Your task to perform on an android device: Search for "bose quietcomfort 35" on newegg.com, select the first entry, add it to the cart, then select checkout. Image 0: 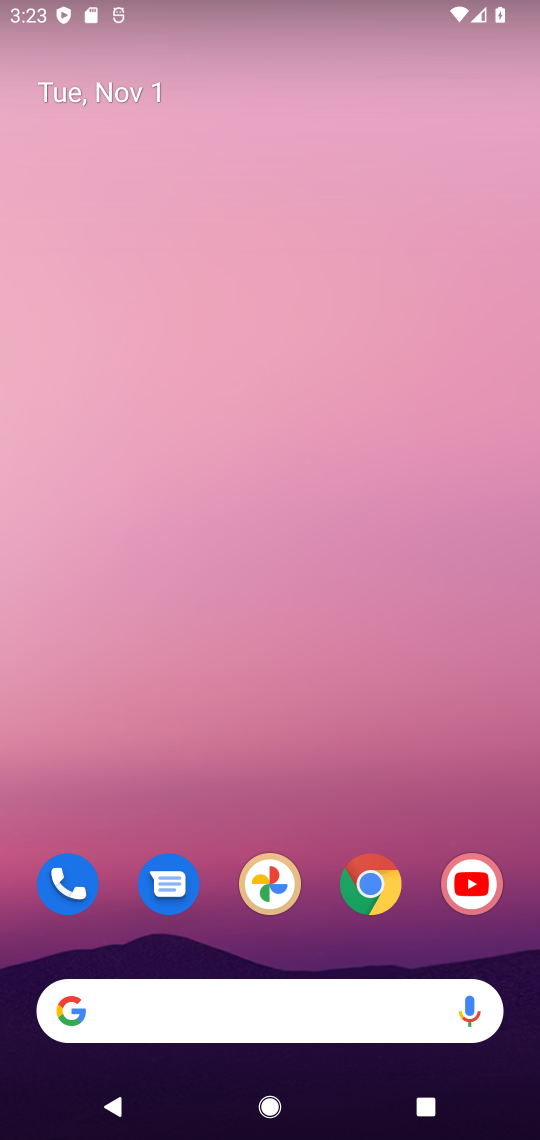
Step 0: click (373, 877)
Your task to perform on an android device: Search for "bose quietcomfort 35" on newegg.com, select the first entry, add it to the cart, then select checkout. Image 1: 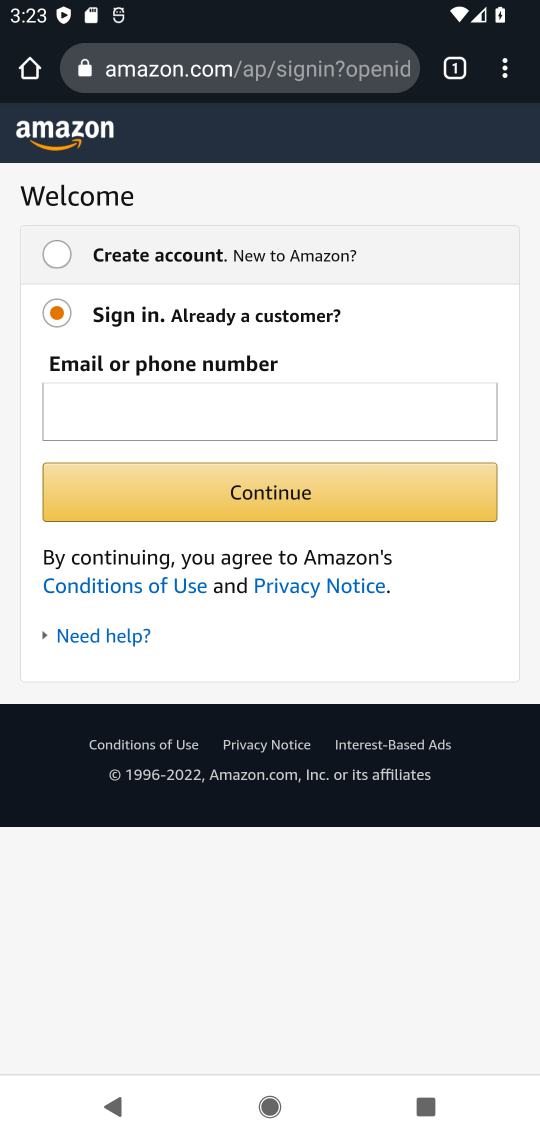
Step 1: click (308, 69)
Your task to perform on an android device: Search for "bose quietcomfort 35" on newegg.com, select the first entry, add it to the cart, then select checkout. Image 2: 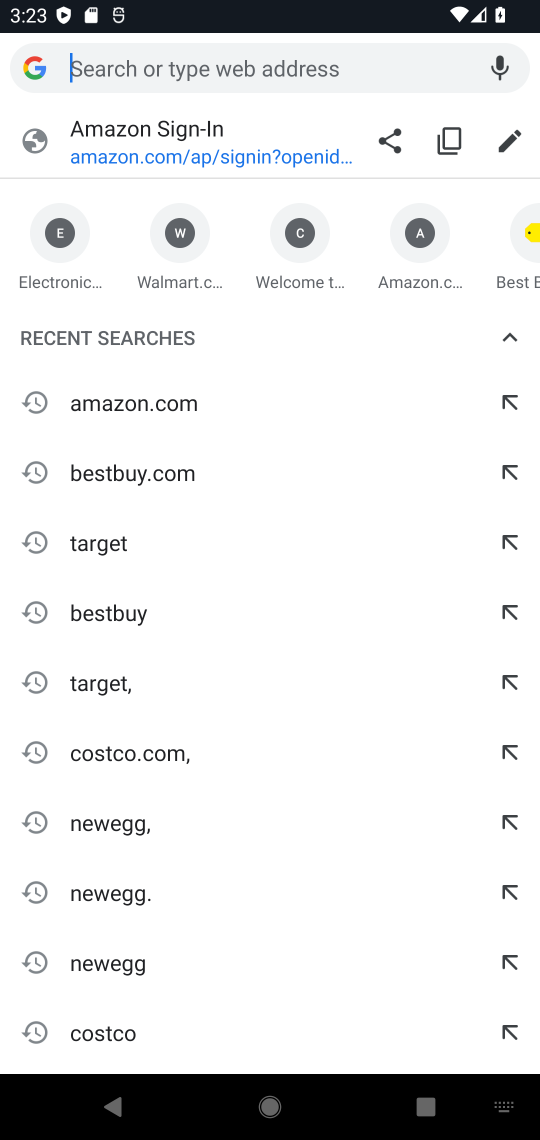
Step 2: type "newegg.com"
Your task to perform on an android device: Search for "bose quietcomfort 35" on newegg.com, select the first entry, add it to the cart, then select checkout. Image 3: 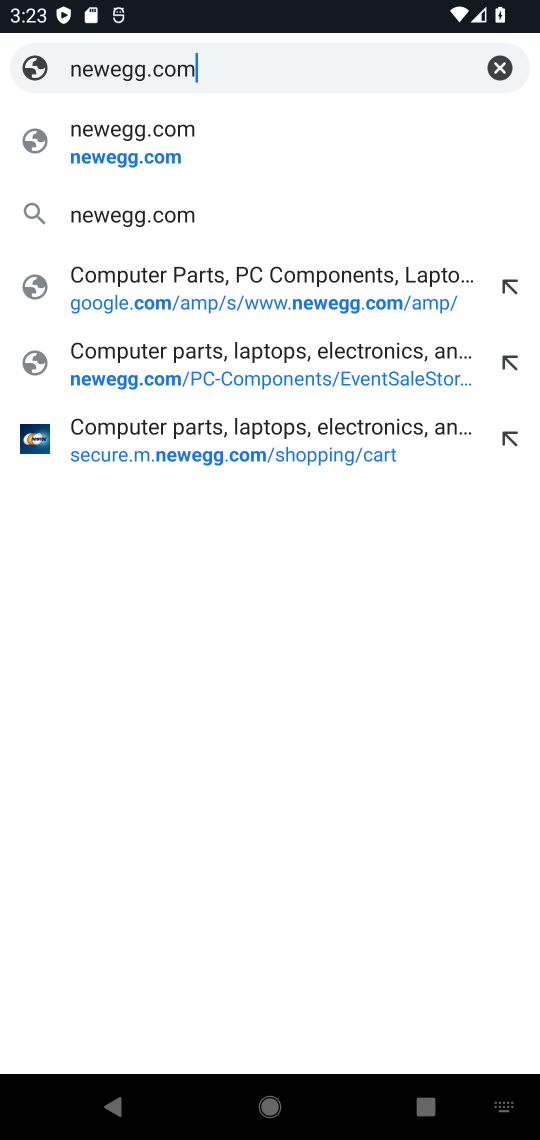
Step 3: click (172, 133)
Your task to perform on an android device: Search for "bose quietcomfort 35" on newegg.com, select the first entry, add it to the cart, then select checkout. Image 4: 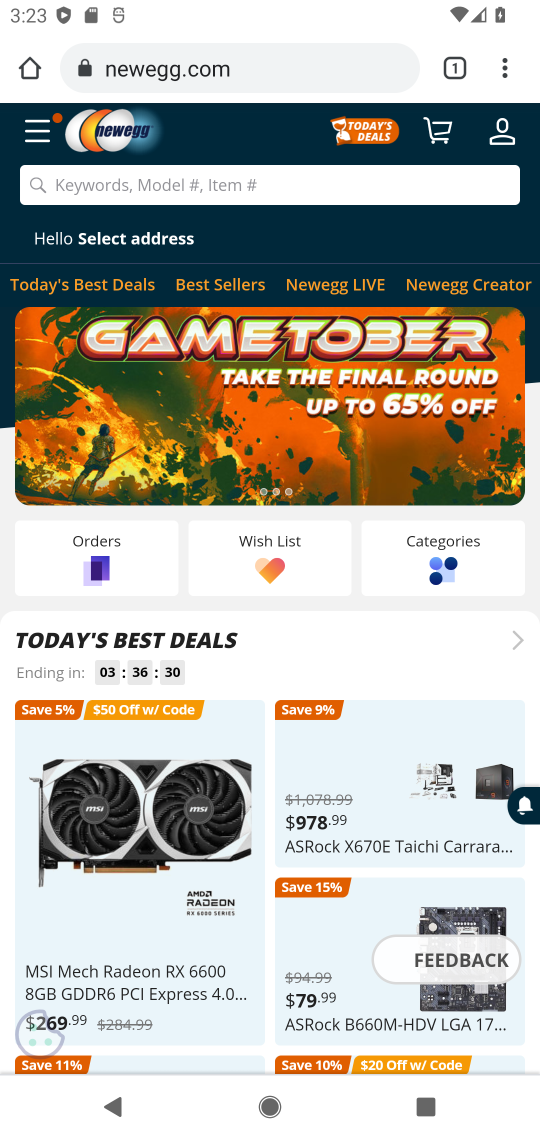
Step 4: click (309, 192)
Your task to perform on an android device: Search for "bose quietcomfort 35" on newegg.com, select the first entry, add it to the cart, then select checkout. Image 5: 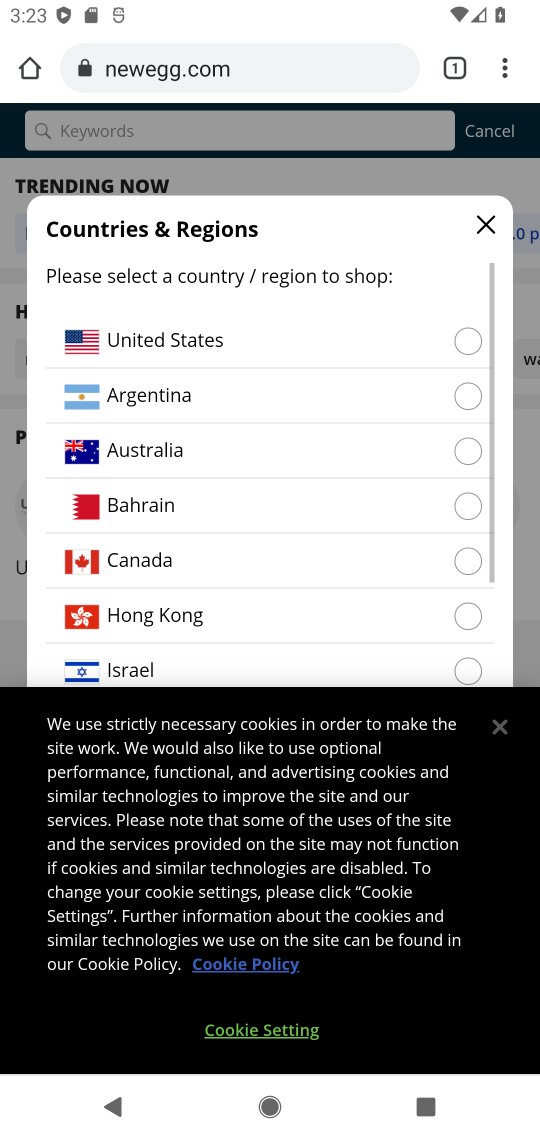
Step 5: click (479, 333)
Your task to perform on an android device: Search for "bose quietcomfort 35" on newegg.com, select the first entry, add it to the cart, then select checkout. Image 6: 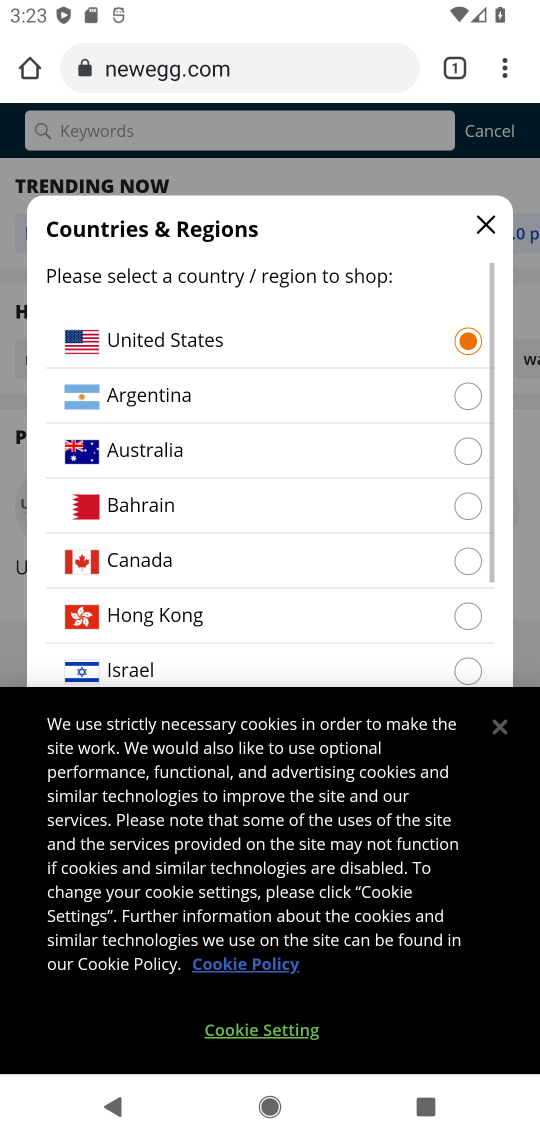
Step 6: click (489, 221)
Your task to perform on an android device: Search for "bose quietcomfort 35" on newegg.com, select the first entry, add it to the cart, then select checkout. Image 7: 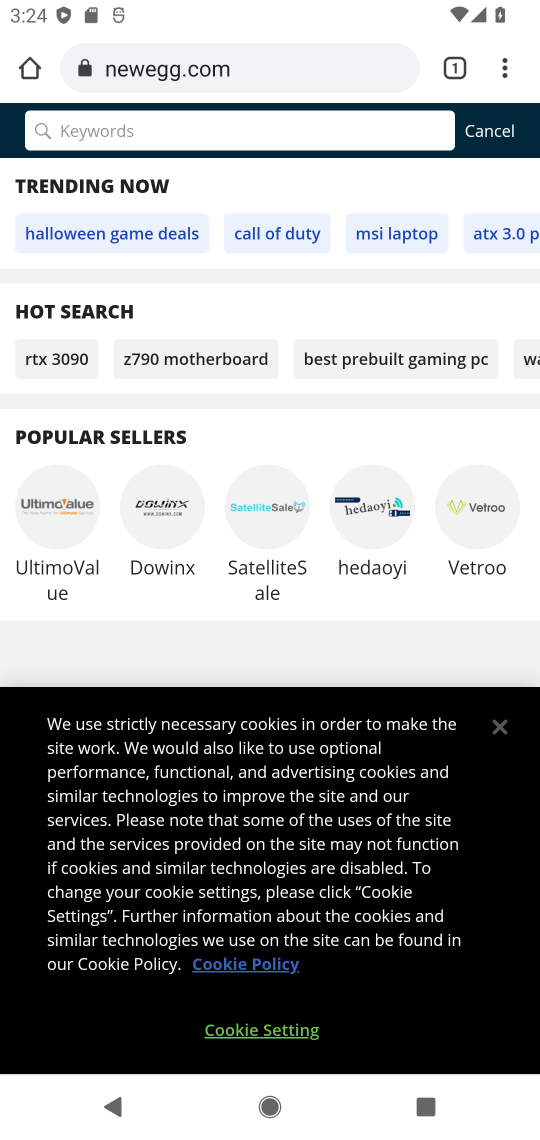
Step 7: click (484, 123)
Your task to perform on an android device: Search for "bose quietcomfort 35" on newegg.com, select the first entry, add it to the cart, then select checkout. Image 8: 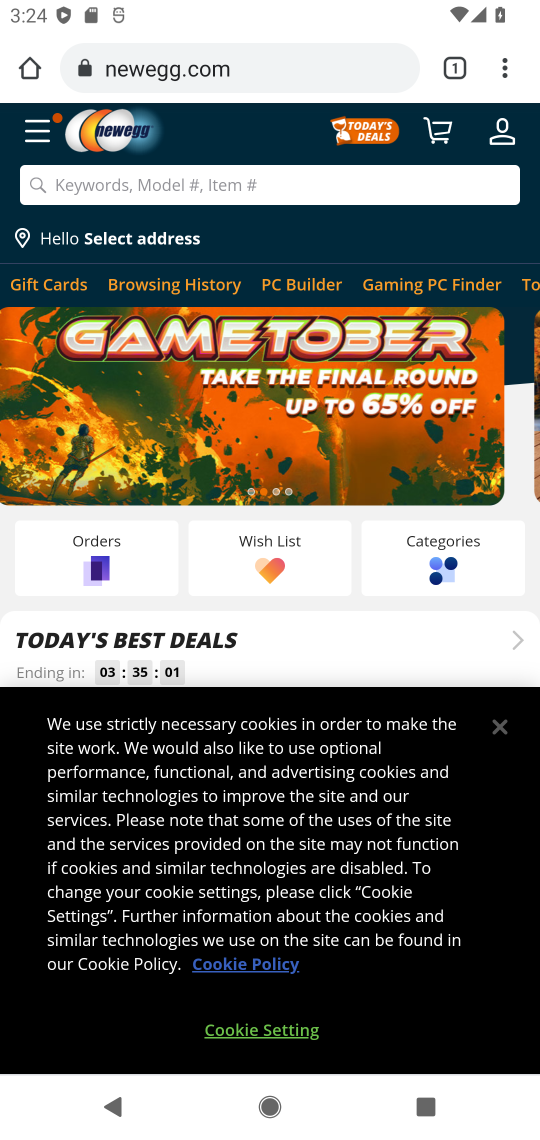
Step 8: click (287, 185)
Your task to perform on an android device: Search for "bose quietcomfort 35" on newegg.com, select the first entry, add it to the cart, then select checkout. Image 9: 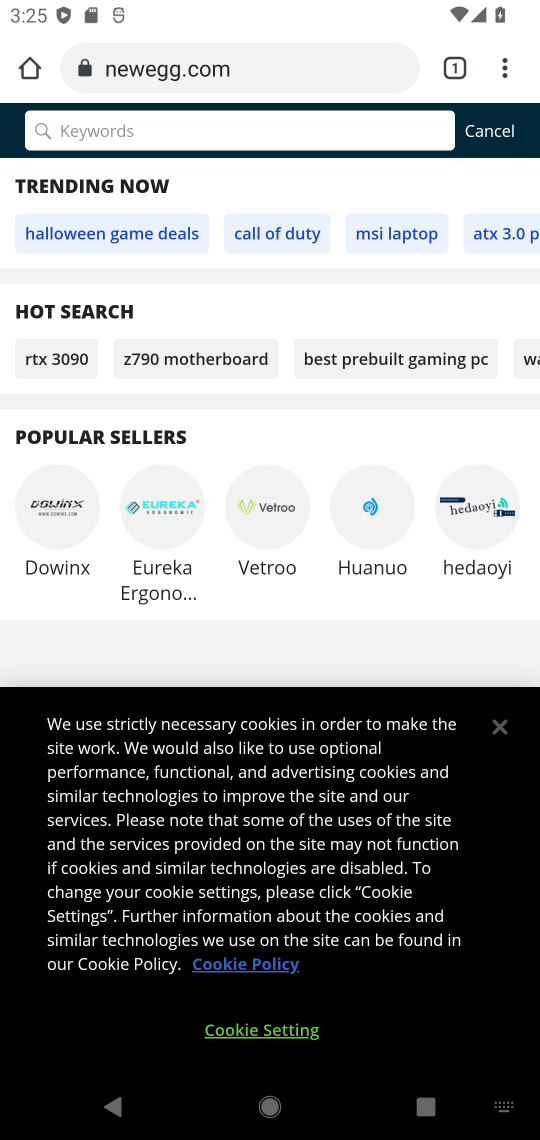
Step 9: type "bose quietcomfort 35"
Your task to perform on an android device: Search for "bose quietcomfort 35" on newegg.com, select the first entry, add it to the cart, then select checkout. Image 10: 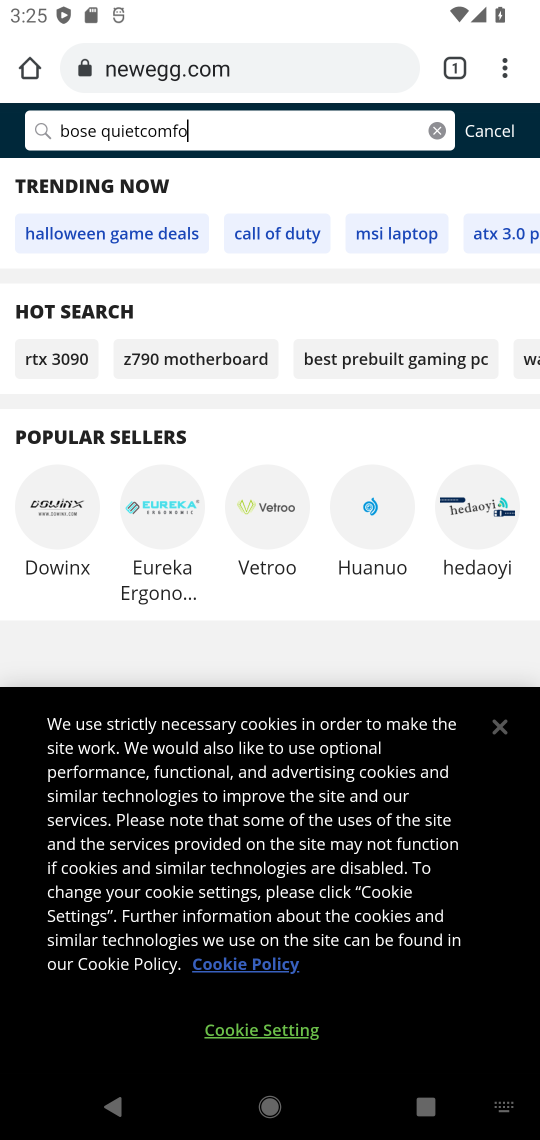
Step 10: press enter
Your task to perform on an android device: Search for "bose quietcomfort 35" on newegg.com, select the first entry, add it to the cart, then select checkout. Image 11: 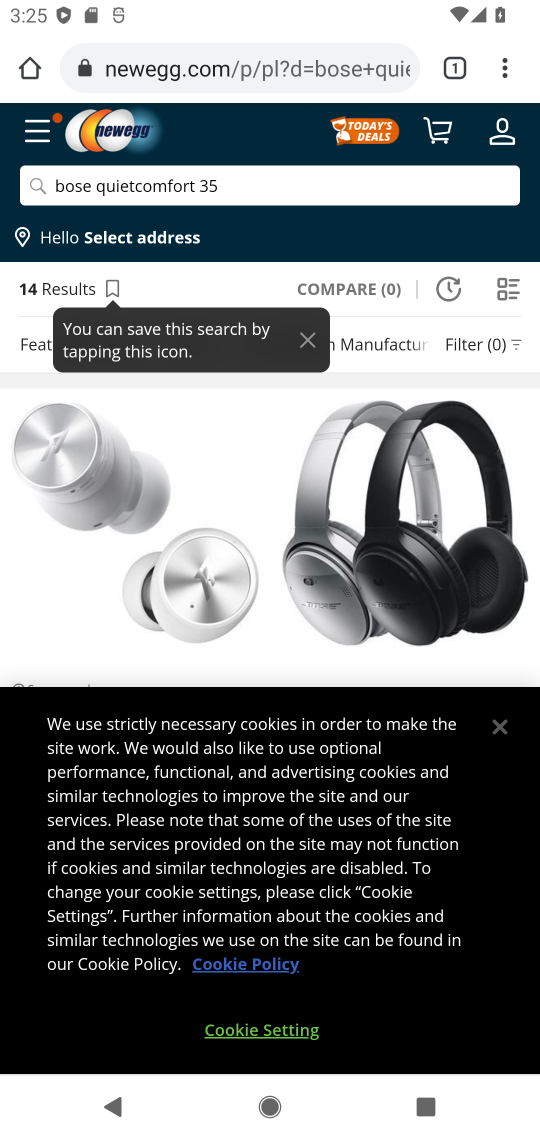
Step 11: click (509, 721)
Your task to perform on an android device: Search for "bose quietcomfort 35" on newegg.com, select the first entry, add it to the cart, then select checkout. Image 12: 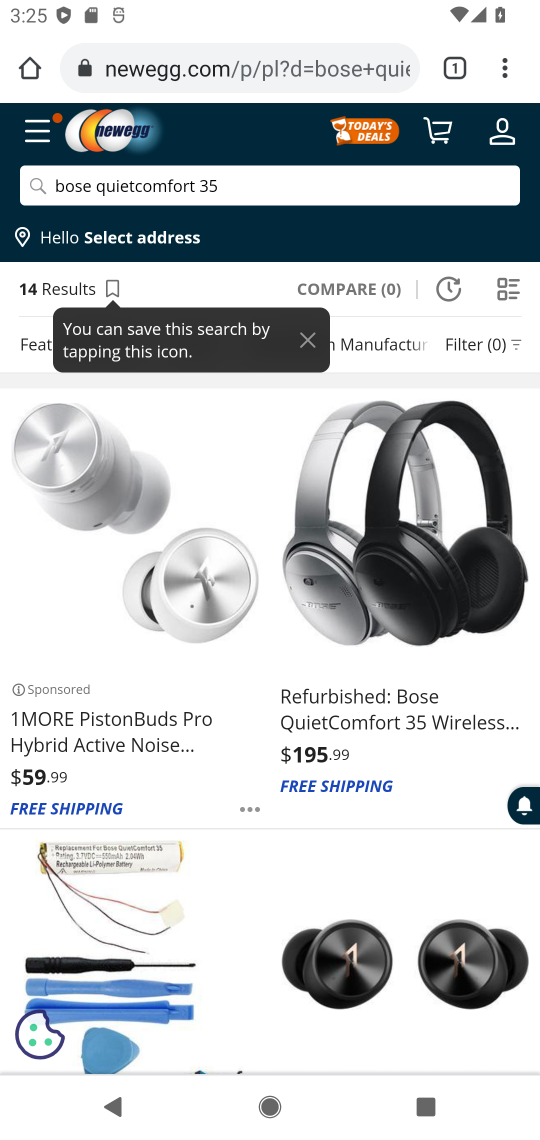
Step 12: click (85, 512)
Your task to perform on an android device: Search for "bose quietcomfort 35" on newegg.com, select the first entry, add it to the cart, then select checkout. Image 13: 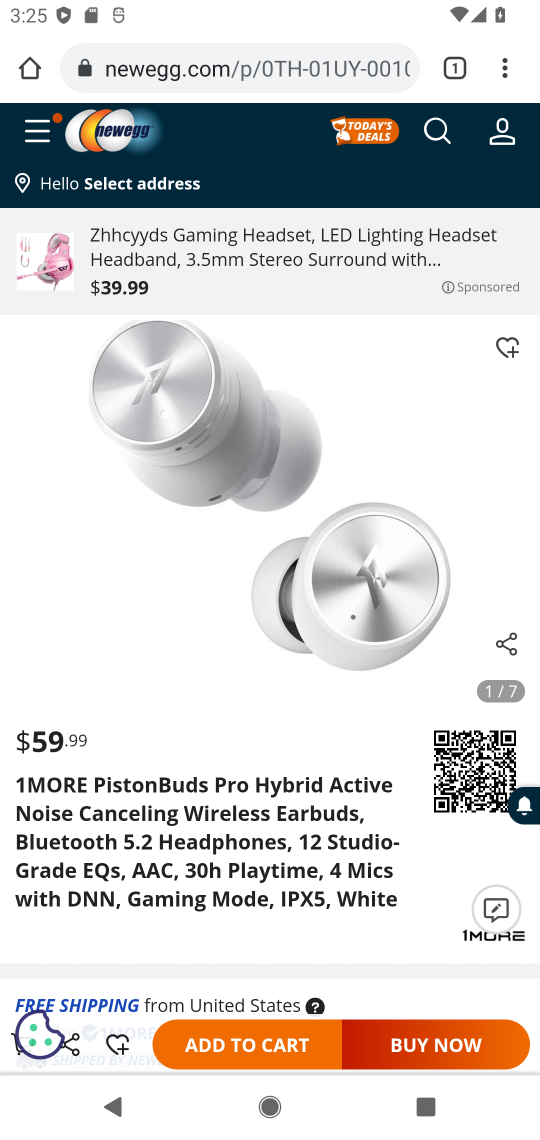
Step 13: click (207, 1048)
Your task to perform on an android device: Search for "bose quietcomfort 35" on newegg.com, select the first entry, add it to the cart, then select checkout. Image 14: 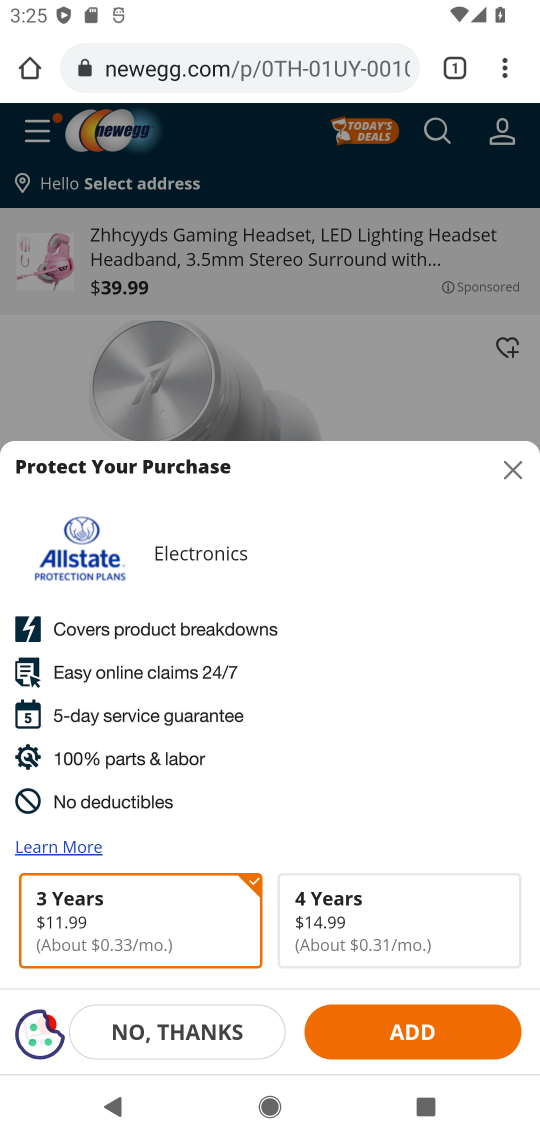
Step 14: click (507, 469)
Your task to perform on an android device: Search for "bose quietcomfort 35" on newegg.com, select the first entry, add it to the cart, then select checkout. Image 15: 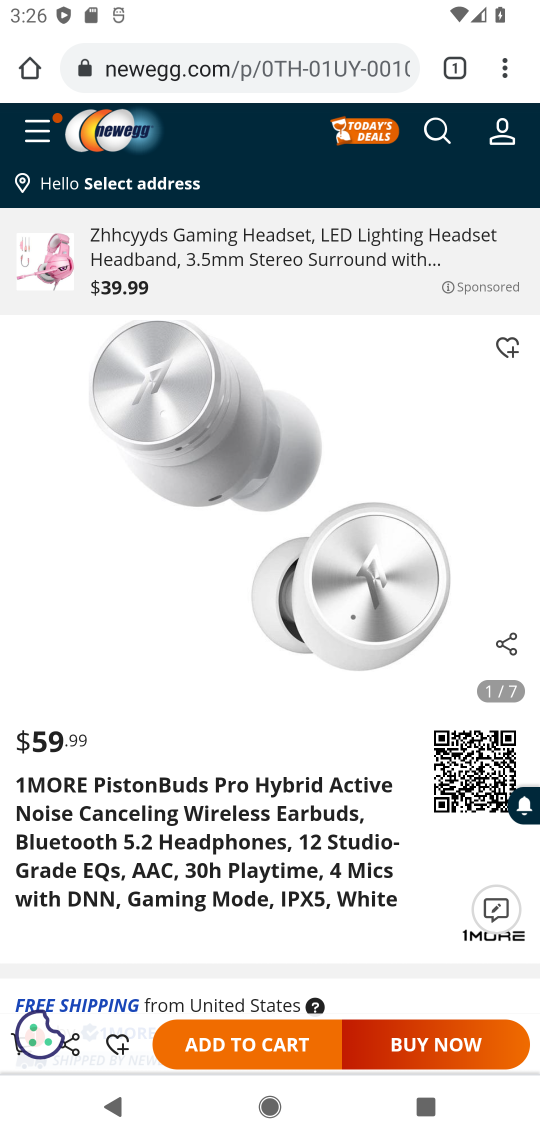
Step 15: click (501, 139)
Your task to perform on an android device: Search for "bose quietcomfort 35" on newegg.com, select the first entry, add it to the cart, then select checkout. Image 16: 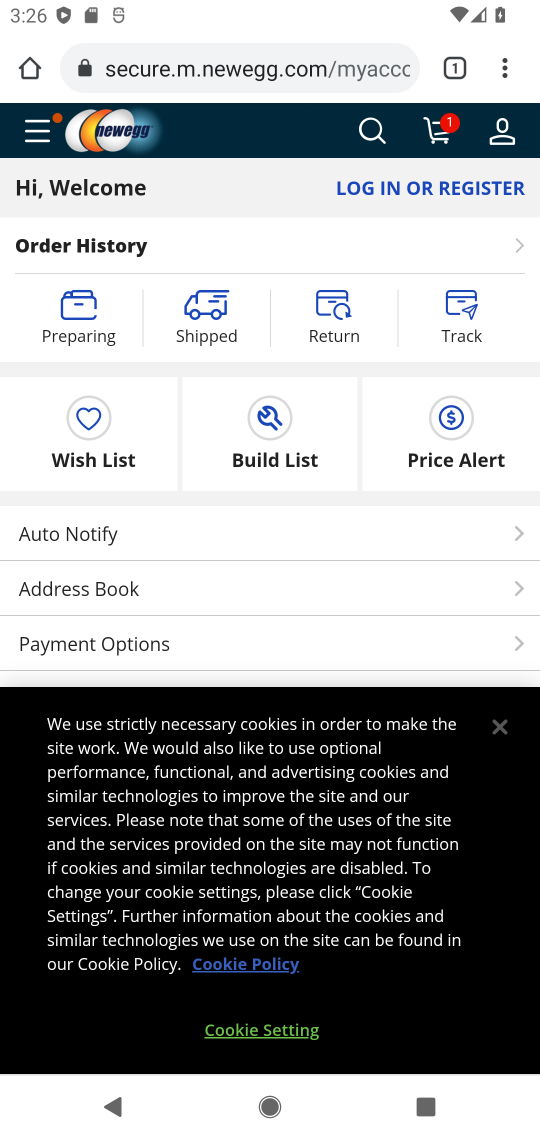
Step 16: click (437, 120)
Your task to perform on an android device: Search for "bose quietcomfort 35" on newegg.com, select the first entry, add it to the cart, then select checkout. Image 17: 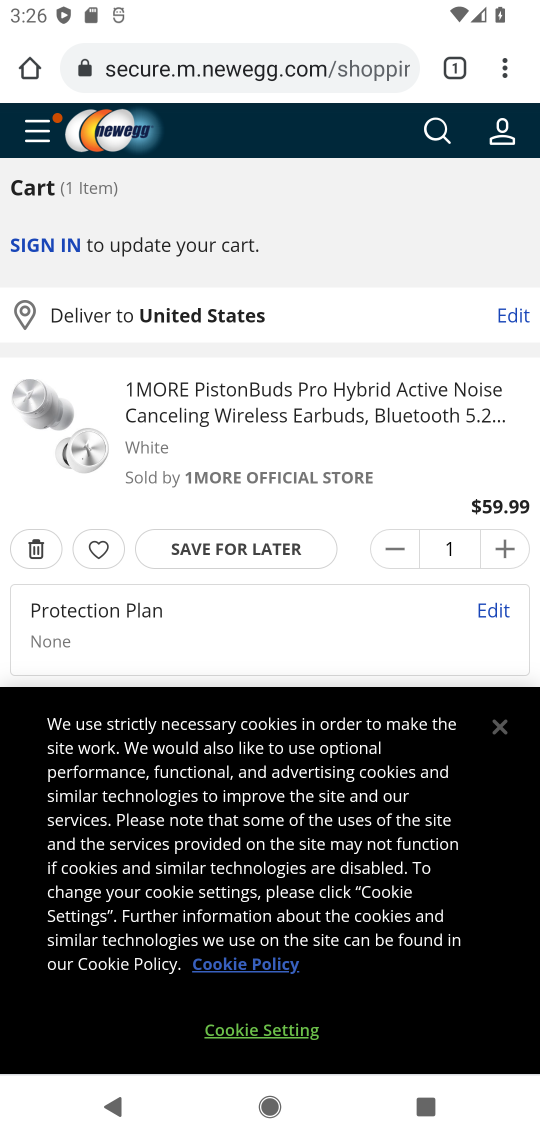
Step 17: click (500, 726)
Your task to perform on an android device: Search for "bose quietcomfort 35" on newegg.com, select the first entry, add it to the cart, then select checkout. Image 18: 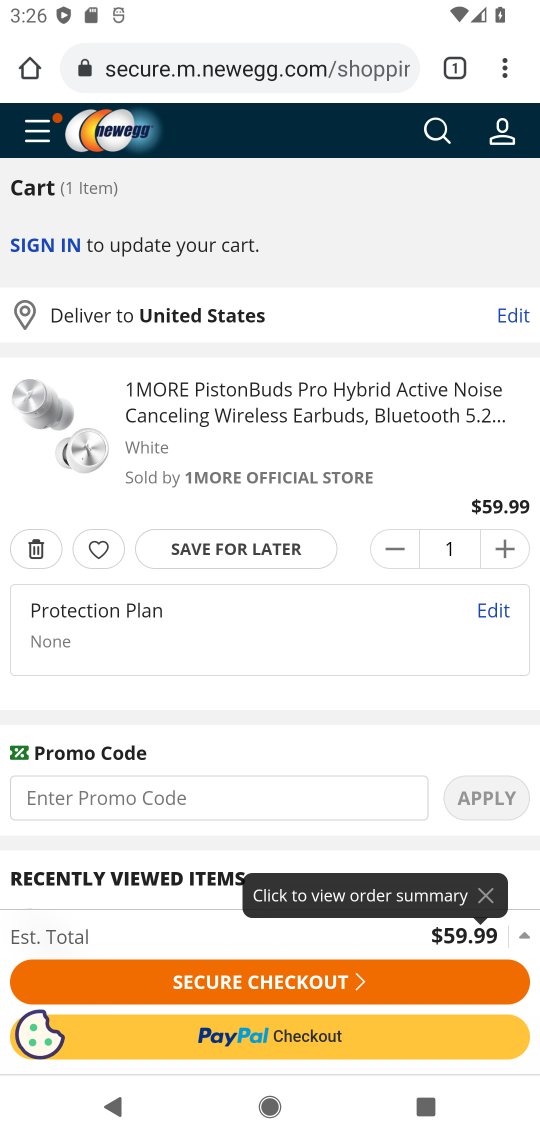
Step 18: click (180, 979)
Your task to perform on an android device: Search for "bose quietcomfort 35" on newegg.com, select the first entry, add it to the cart, then select checkout. Image 19: 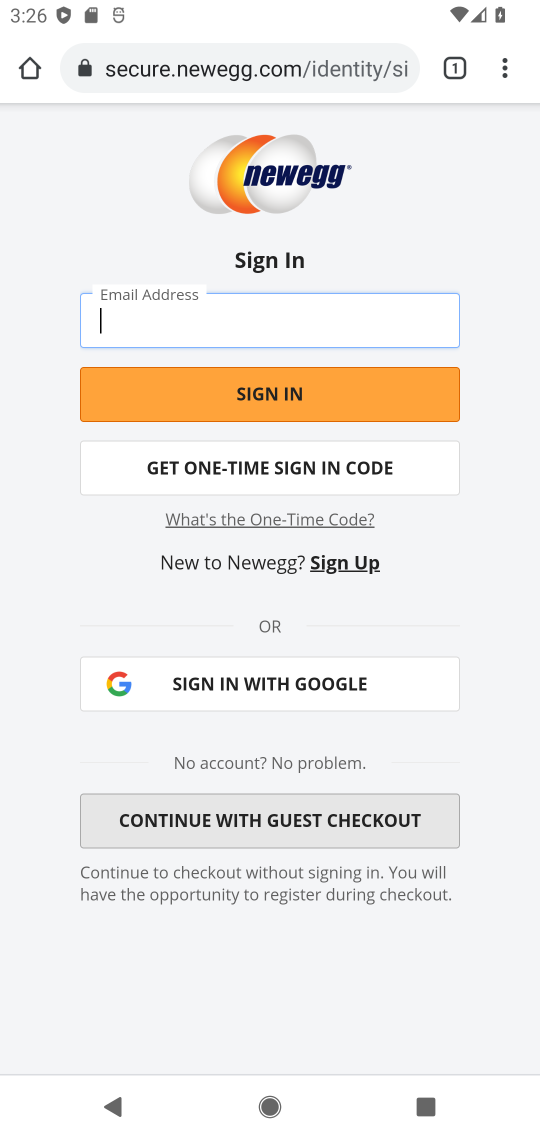
Step 19: task complete